Your task to perform on an android device: check storage Image 0: 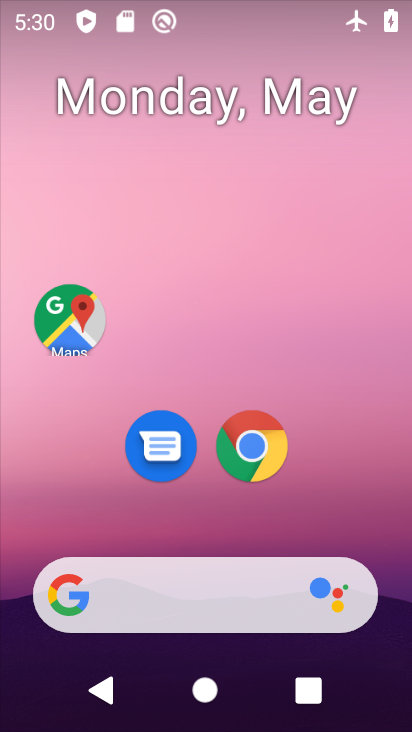
Step 0: drag from (335, 522) to (160, 112)
Your task to perform on an android device: check storage Image 1: 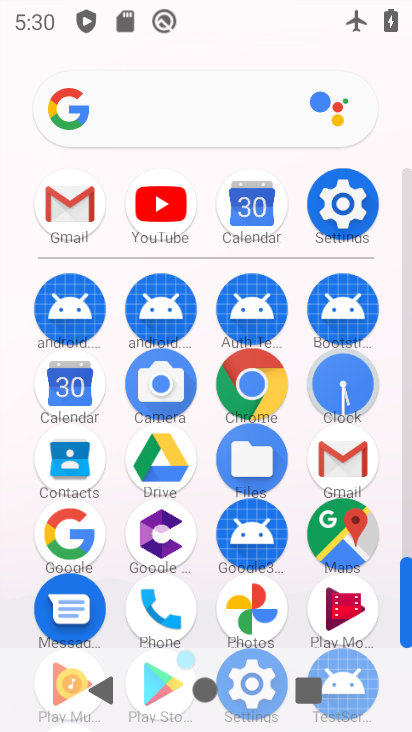
Step 1: click (336, 205)
Your task to perform on an android device: check storage Image 2: 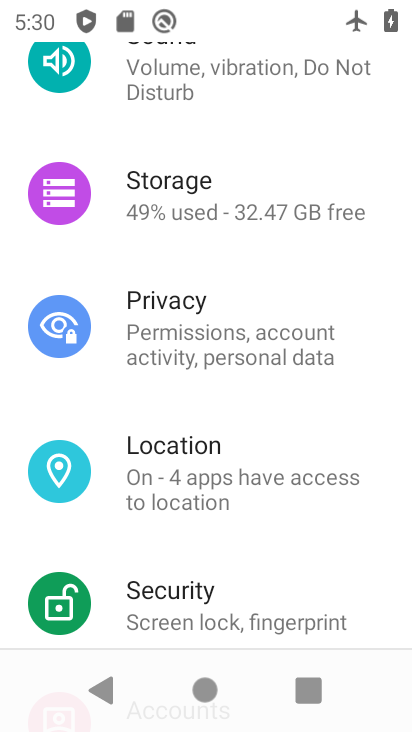
Step 2: click (154, 168)
Your task to perform on an android device: check storage Image 3: 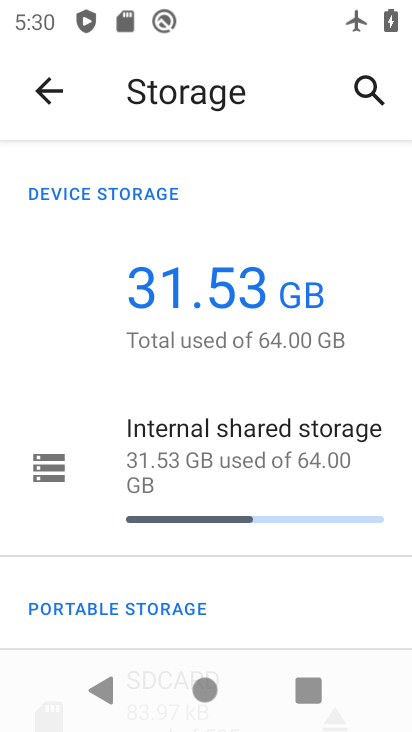
Step 3: task complete